Your task to perform on an android device: Search for Mexican restaurants on Maps Image 0: 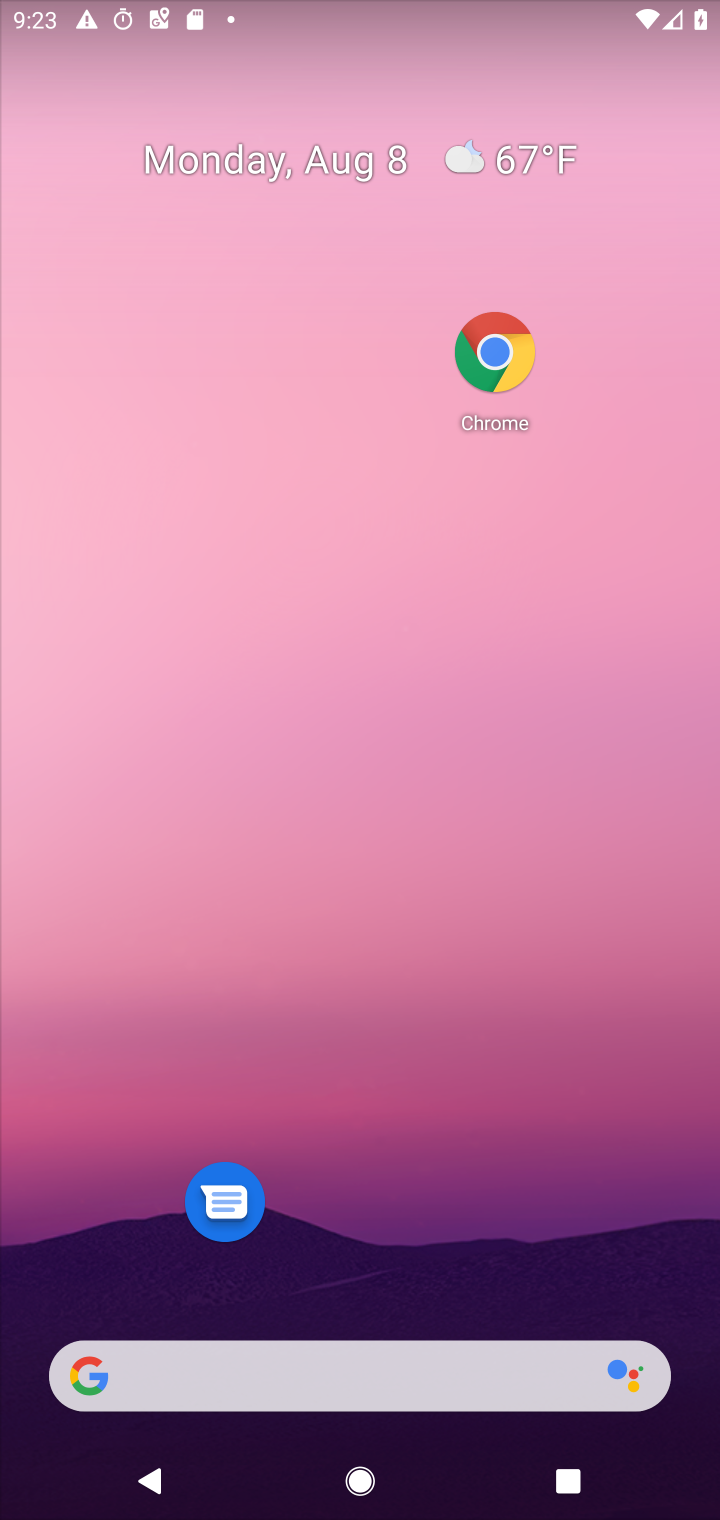
Step 0: drag from (400, 1315) to (547, 213)
Your task to perform on an android device: Search for Mexican restaurants on Maps Image 1: 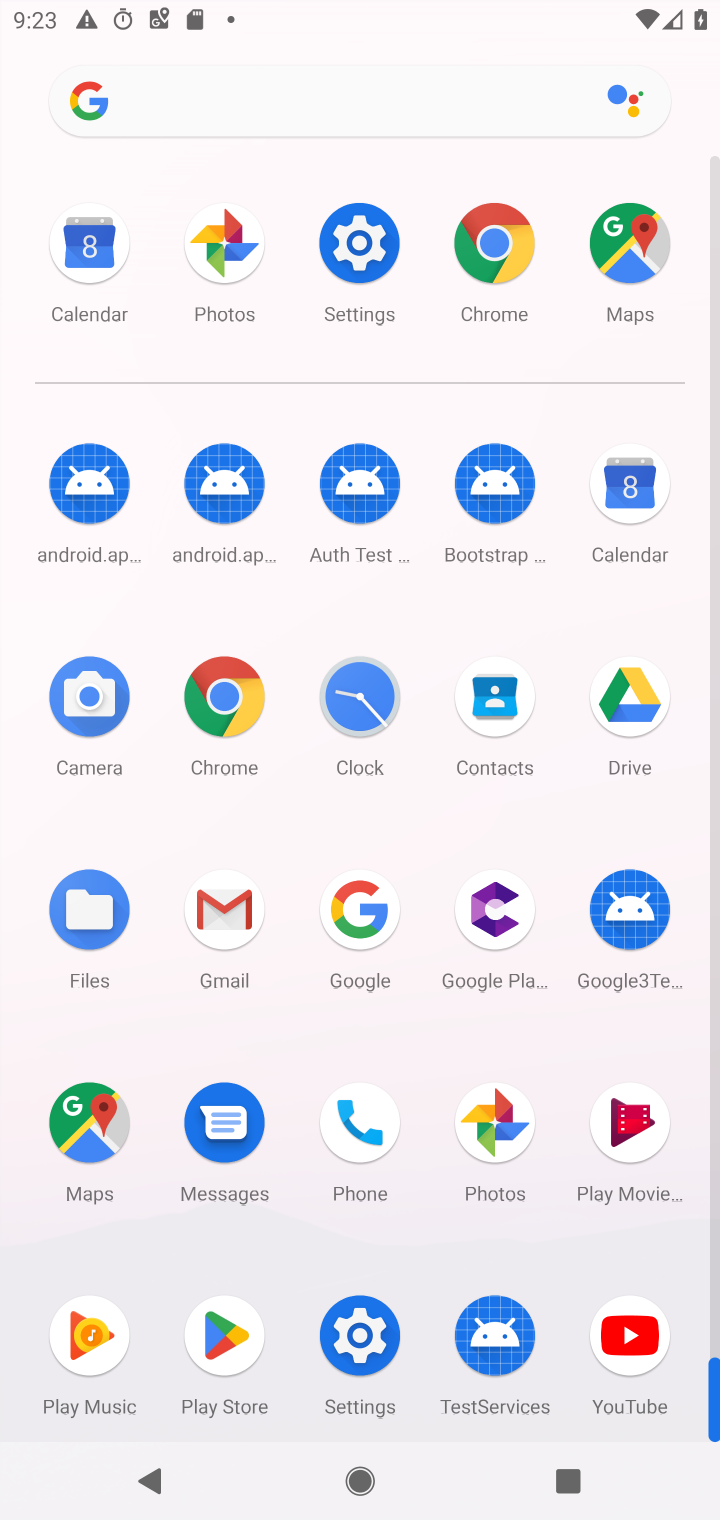
Step 1: click (640, 289)
Your task to perform on an android device: Search for Mexican restaurants on Maps Image 2: 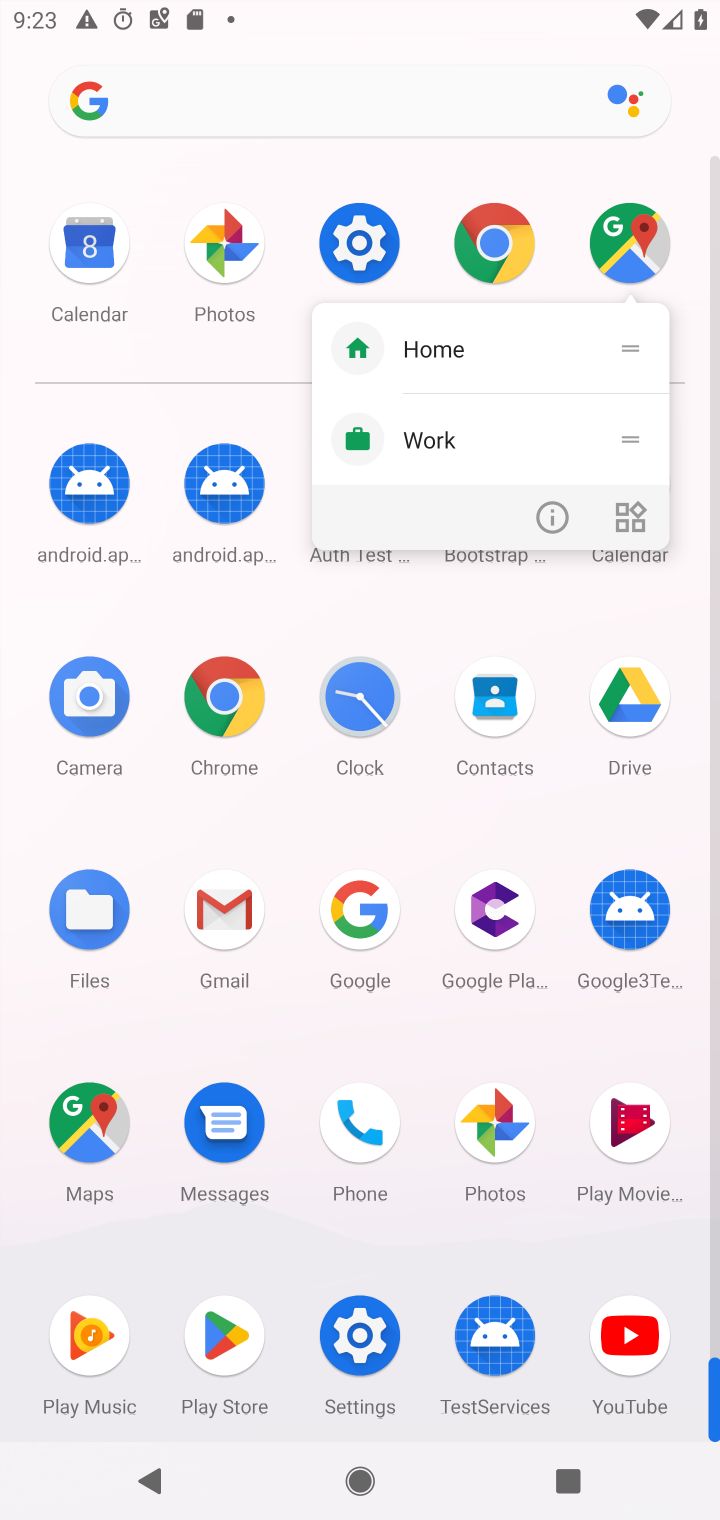
Step 2: click (69, 1146)
Your task to perform on an android device: Search for Mexican restaurants on Maps Image 3: 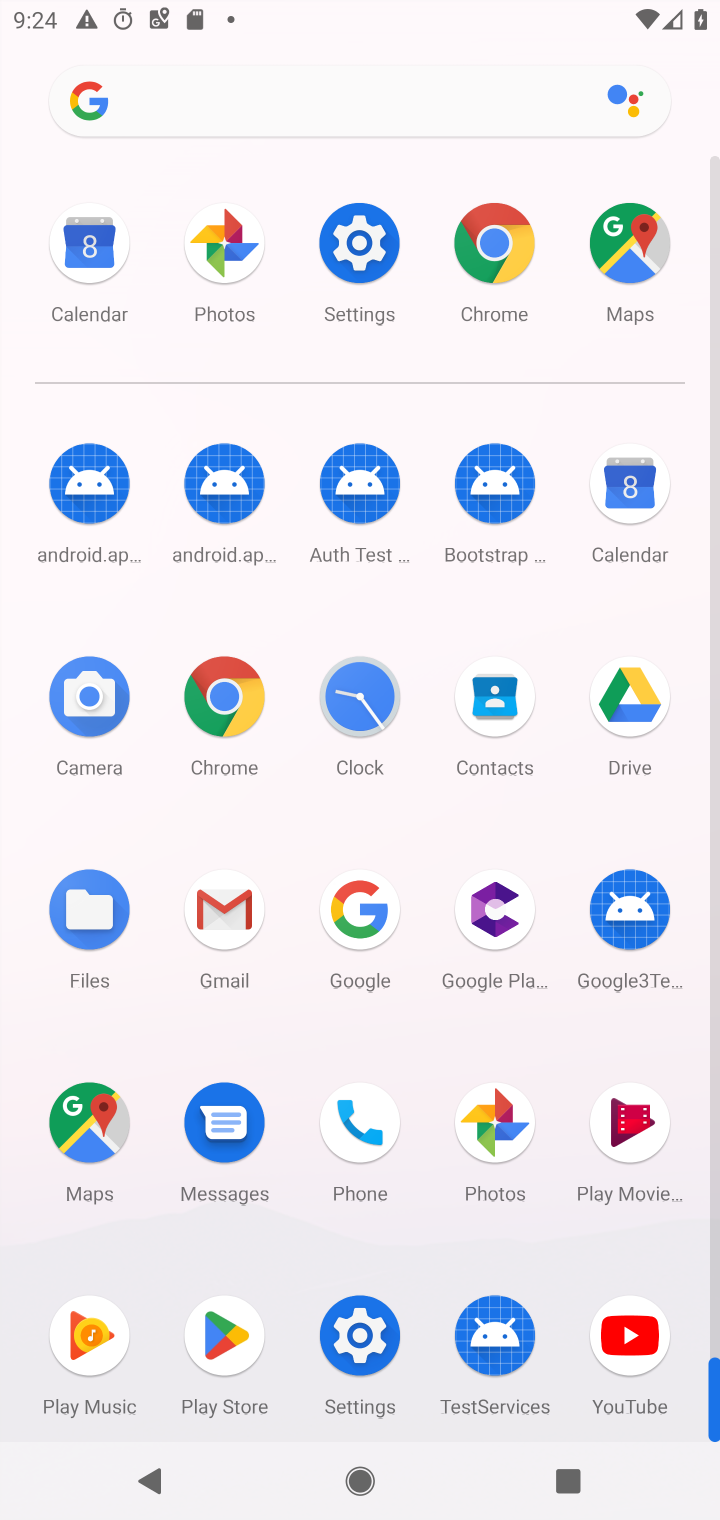
Step 3: click (85, 1128)
Your task to perform on an android device: Search for Mexican restaurants on Maps Image 4: 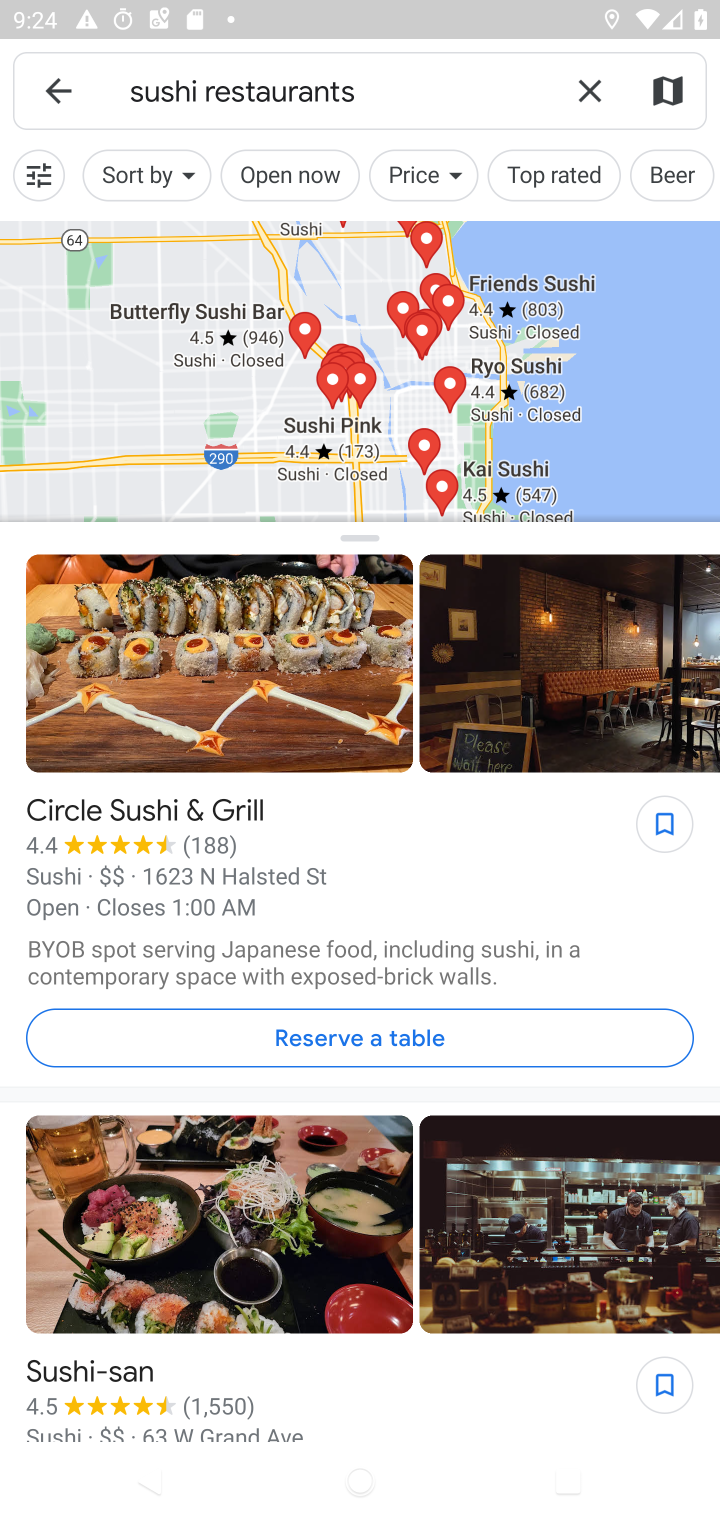
Step 4: click (586, 84)
Your task to perform on an android device: Search for Mexican restaurants on Maps Image 5: 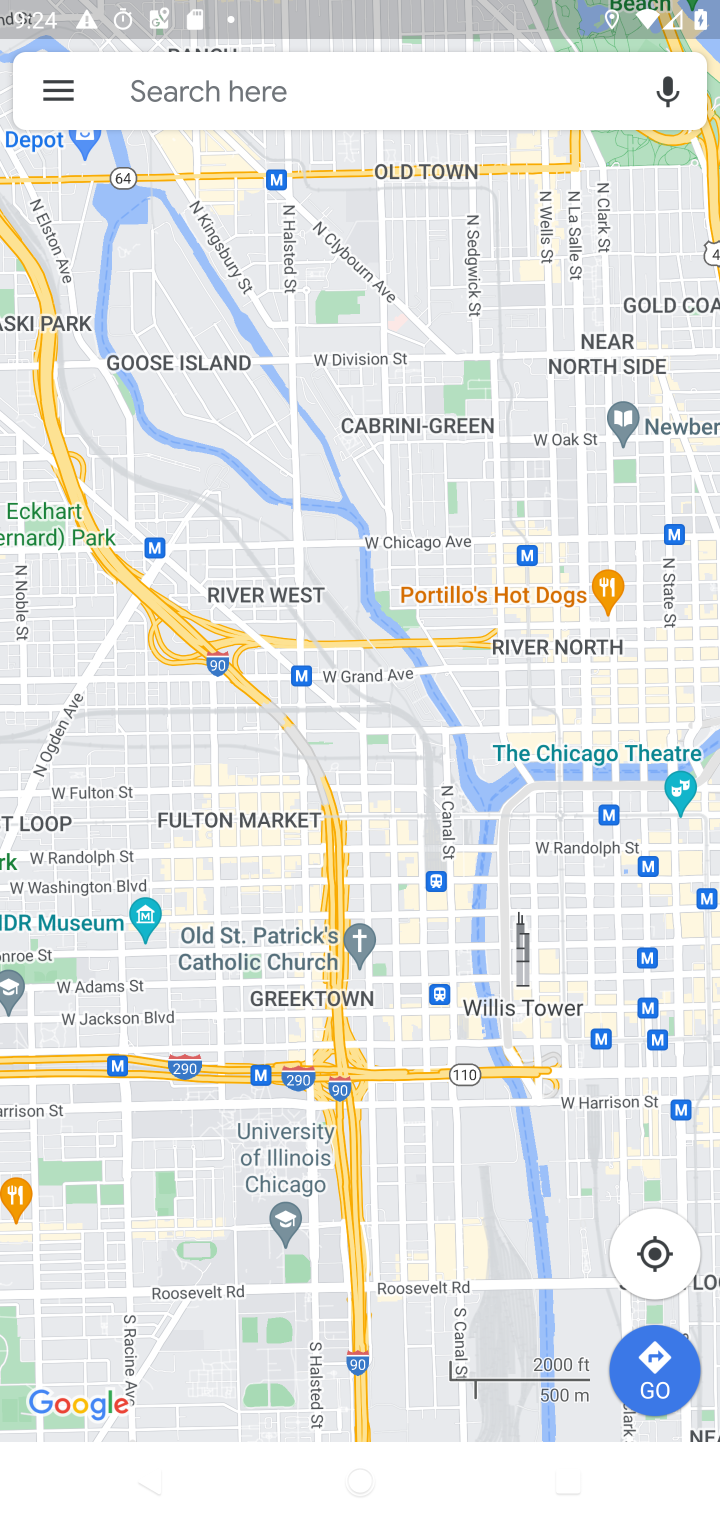
Step 5: click (420, 89)
Your task to perform on an android device: Search for Mexican restaurants on Maps Image 6: 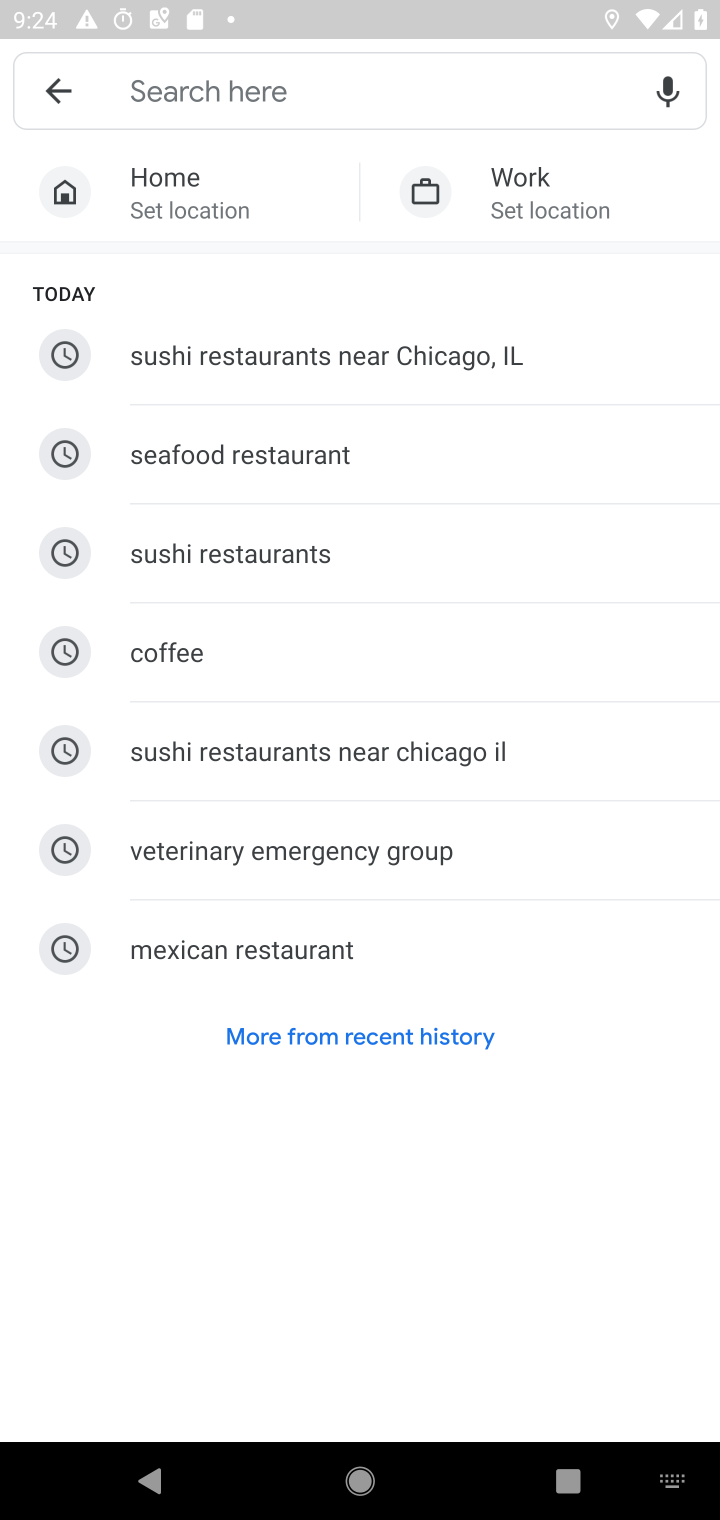
Step 6: click (255, 937)
Your task to perform on an android device: Search for Mexican restaurants on Maps Image 7: 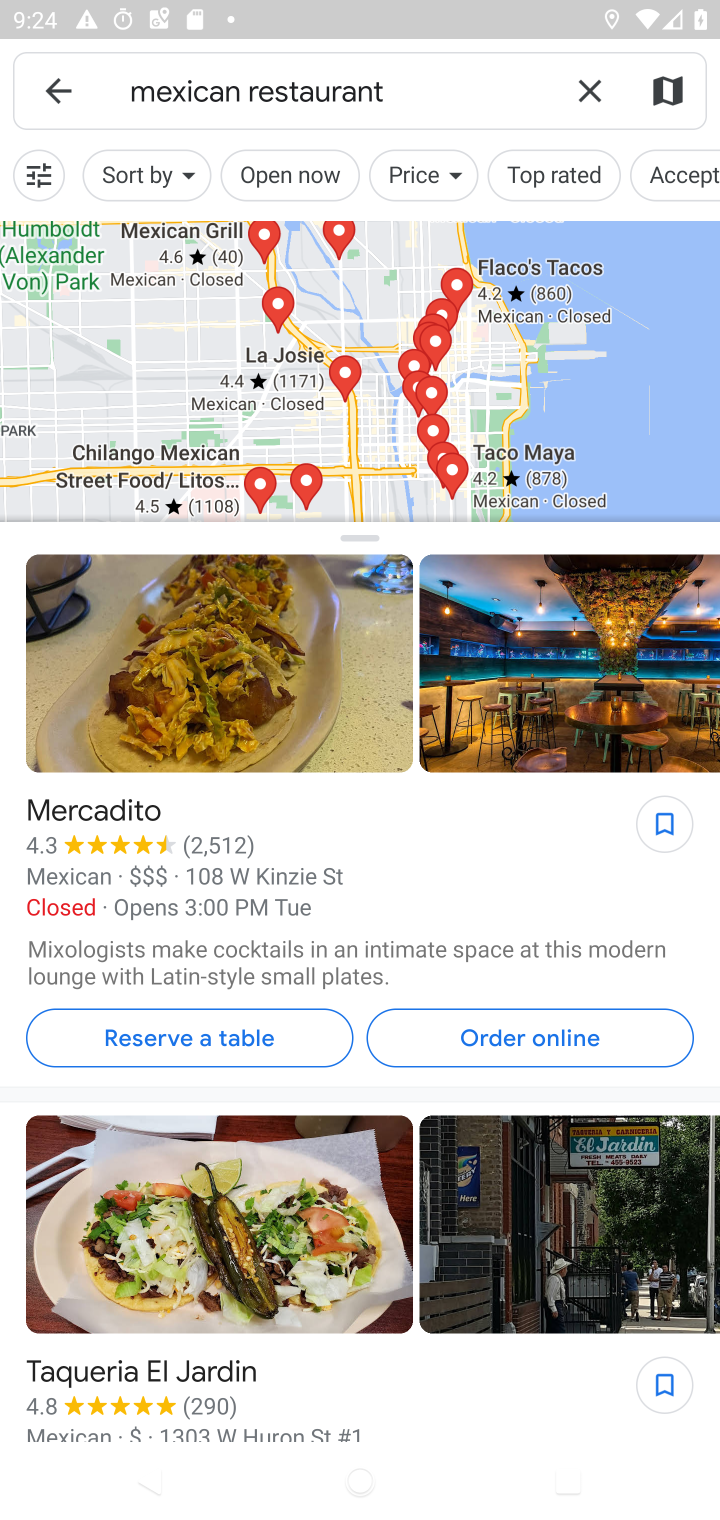
Step 7: task complete